Your task to perform on an android device: toggle notifications settings in the gmail app Image 0: 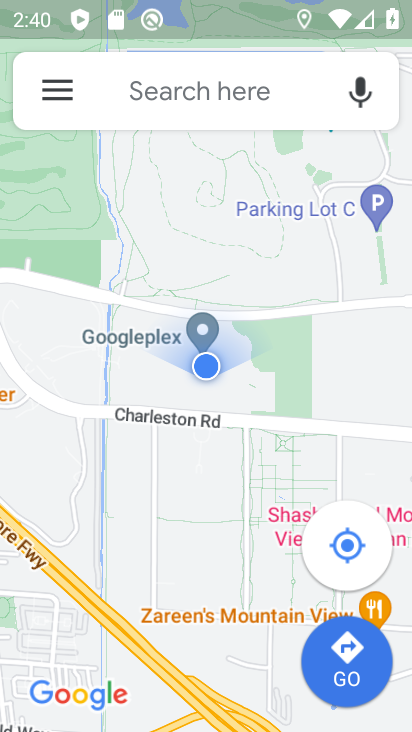
Step 0: press home button
Your task to perform on an android device: toggle notifications settings in the gmail app Image 1: 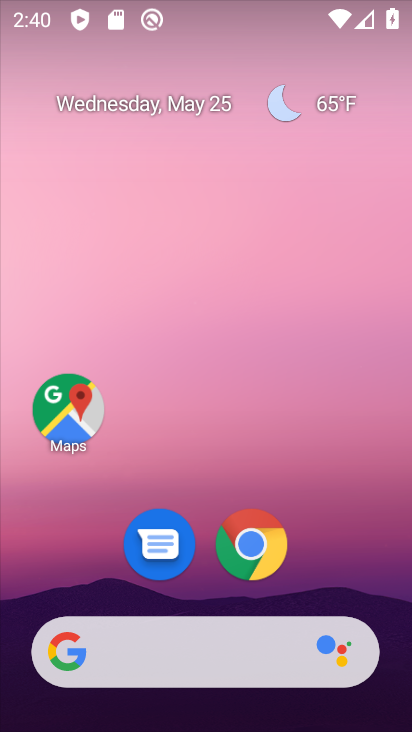
Step 1: drag from (330, 564) to (262, 198)
Your task to perform on an android device: toggle notifications settings in the gmail app Image 2: 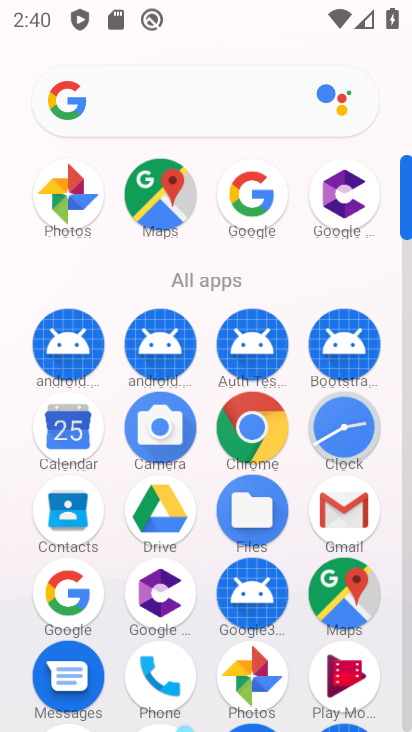
Step 2: click (357, 523)
Your task to perform on an android device: toggle notifications settings in the gmail app Image 3: 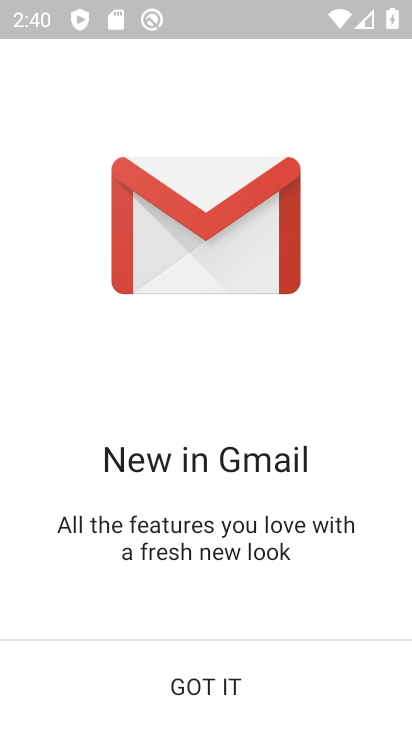
Step 3: click (216, 681)
Your task to perform on an android device: toggle notifications settings in the gmail app Image 4: 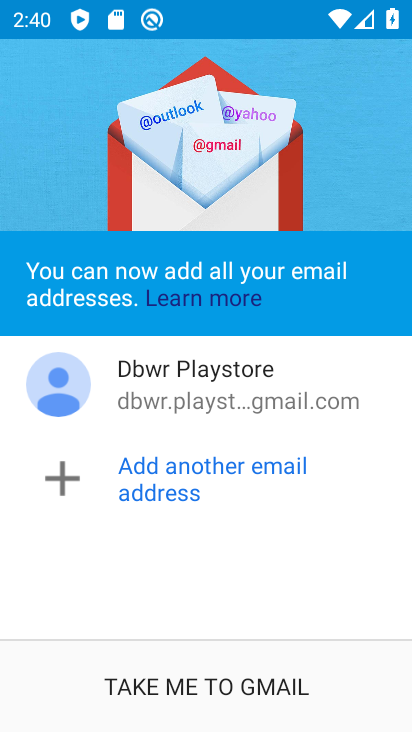
Step 4: click (216, 681)
Your task to perform on an android device: toggle notifications settings in the gmail app Image 5: 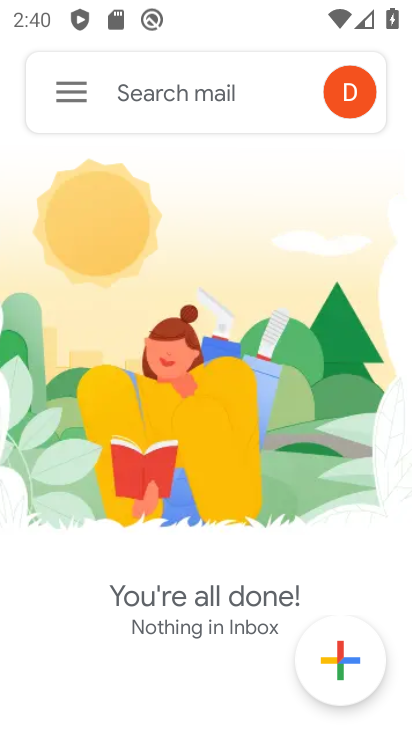
Step 5: click (64, 89)
Your task to perform on an android device: toggle notifications settings in the gmail app Image 6: 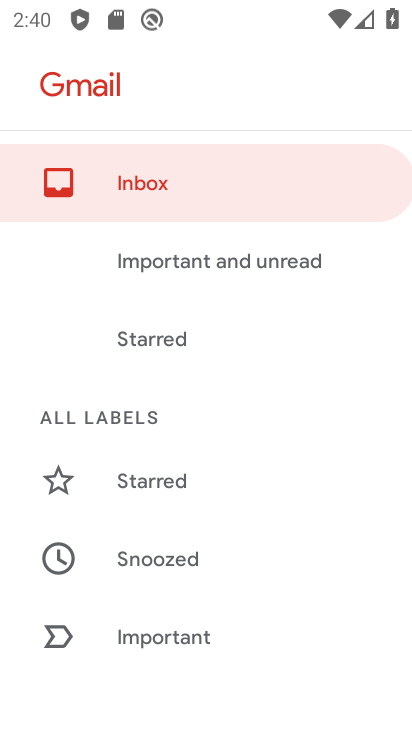
Step 6: drag from (231, 631) to (264, 30)
Your task to perform on an android device: toggle notifications settings in the gmail app Image 7: 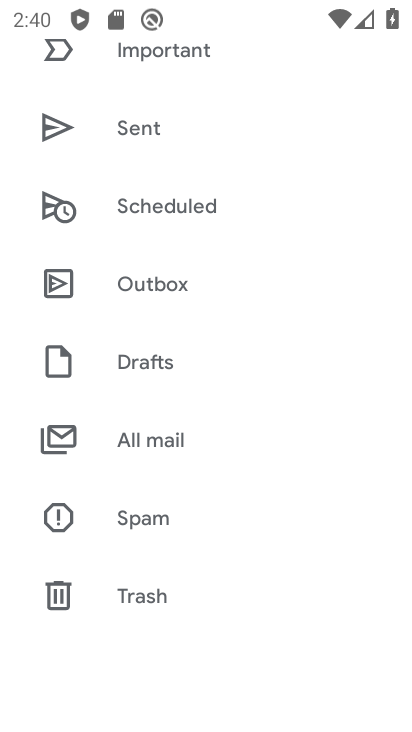
Step 7: drag from (208, 548) to (197, 24)
Your task to perform on an android device: toggle notifications settings in the gmail app Image 8: 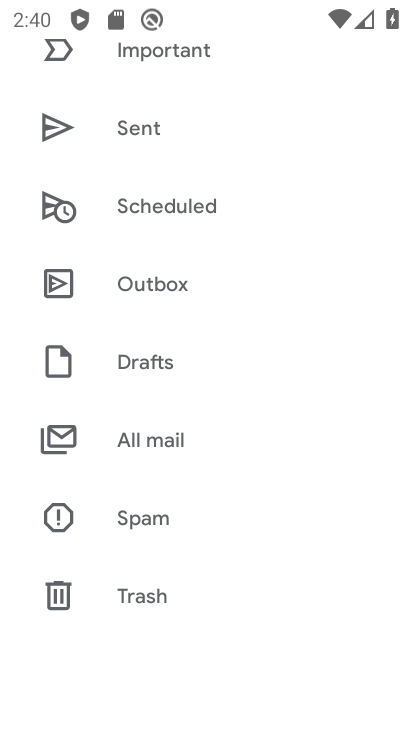
Step 8: drag from (172, 576) to (190, 93)
Your task to perform on an android device: toggle notifications settings in the gmail app Image 9: 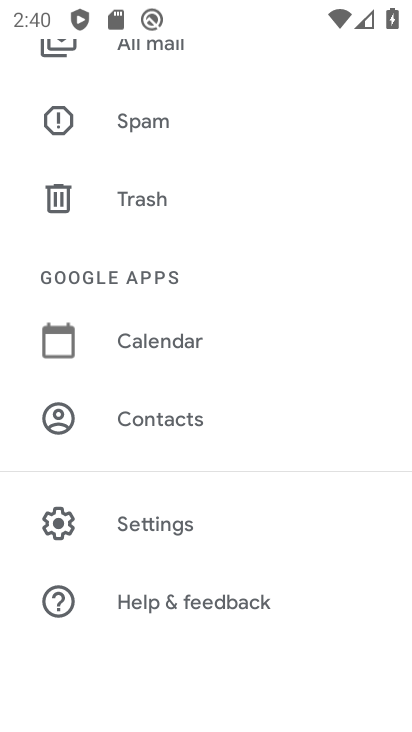
Step 9: click (207, 514)
Your task to perform on an android device: toggle notifications settings in the gmail app Image 10: 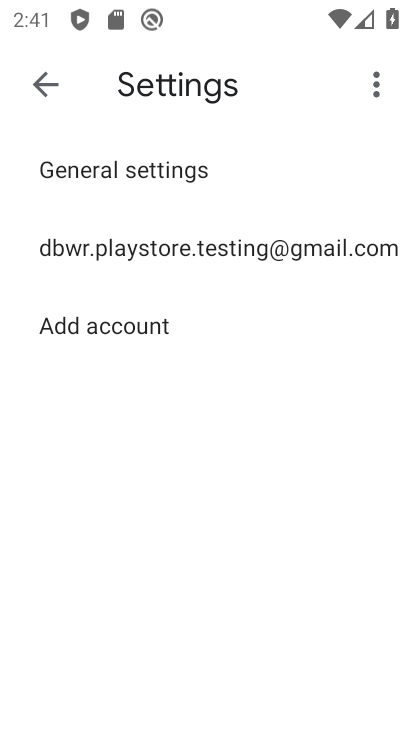
Step 10: click (249, 248)
Your task to perform on an android device: toggle notifications settings in the gmail app Image 11: 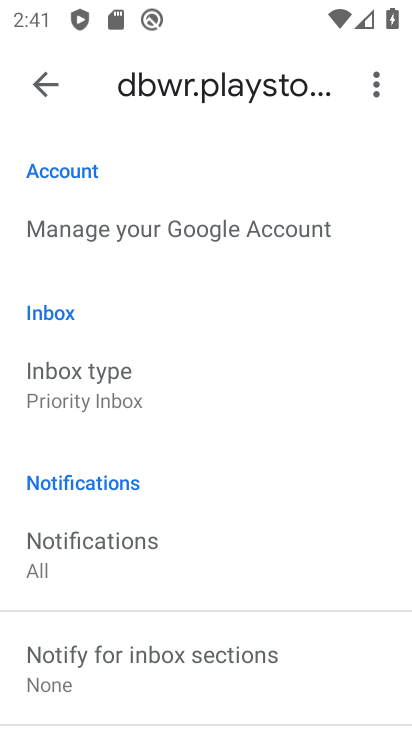
Step 11: drag from (214, 591) to (215, 187)
Your task to perform on an android device: toggle notifications settings in the gmail app Image 12: 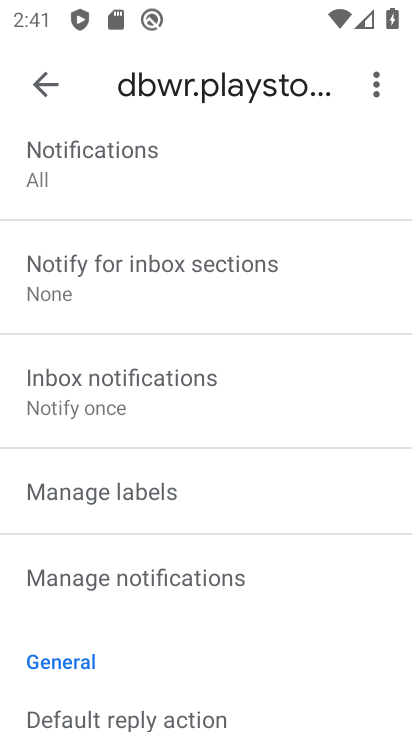
Step 12: click (154, 572)
Your task to perform on an android device: toggle notifications settings in the gmail app Image 13: 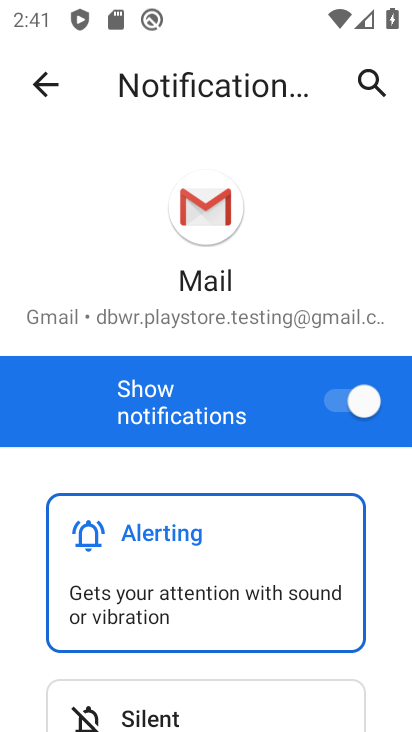
Step 13: drag from (378, 676) to (356, 412)
Your task to perform on an android device: toggle notifications settings in the gmail app Image 14: 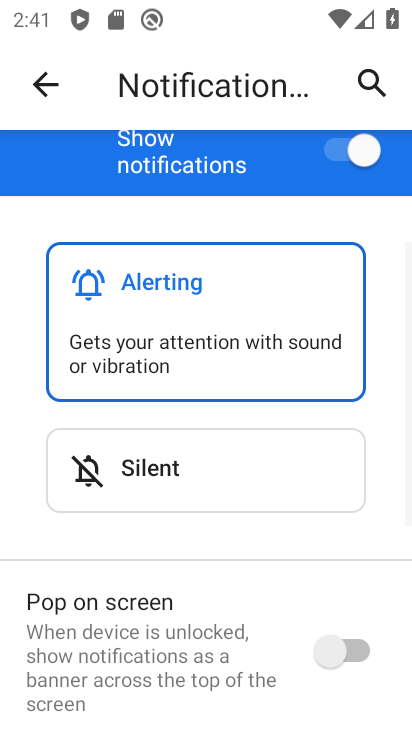
Step 14: click (293, 480)
Your task to perform on an android device: toggle notifications settings in the gmail app Image 15: 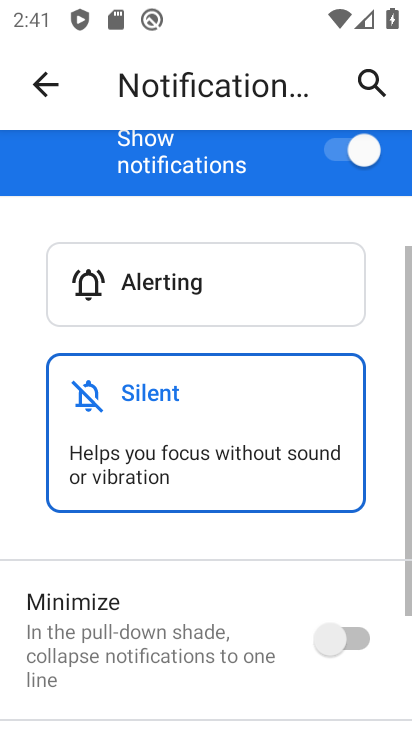
Step 15: click (356, 645)
Your task to perform on an android device: toggle notifications settings in the gmail app Image 16: 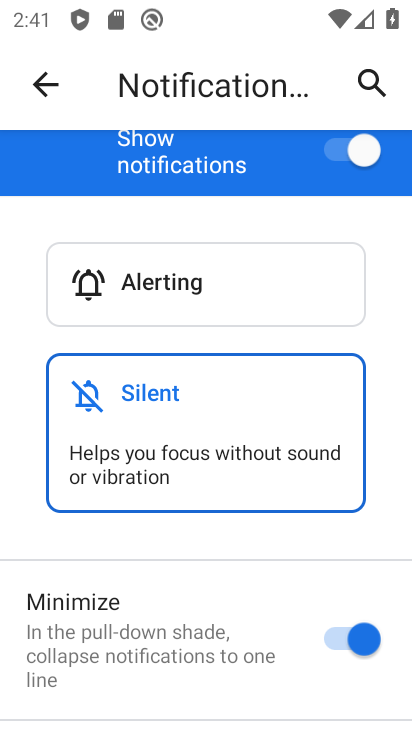
Step 16: task complete